Your task to perform on an android device: turn vacation reply on in the gmail app Image 0: 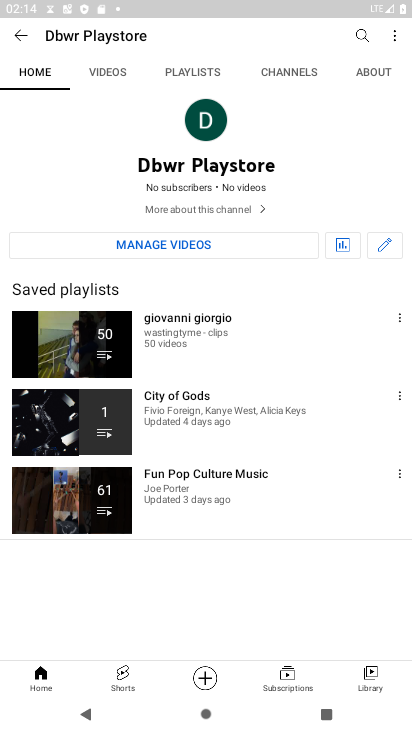
Step 0: press home button
Your task to perform on an android device: turn vacation reply on in the gmail app Image 1: 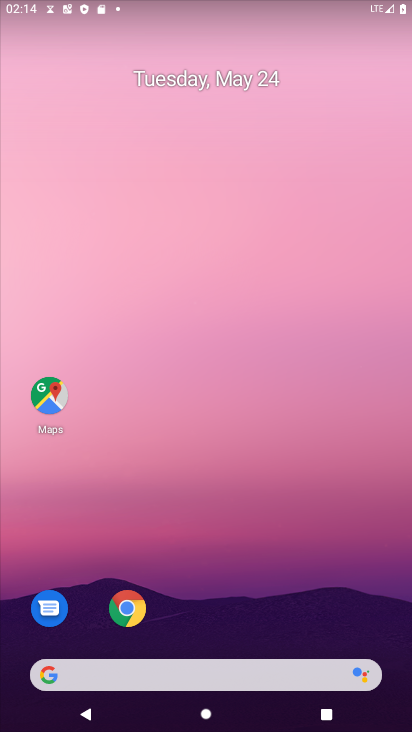
Step 1: drag from (224, 625) to (143, 194)
Your task to perform on an android device: turn vacation reply on in the gmail app Image 2: 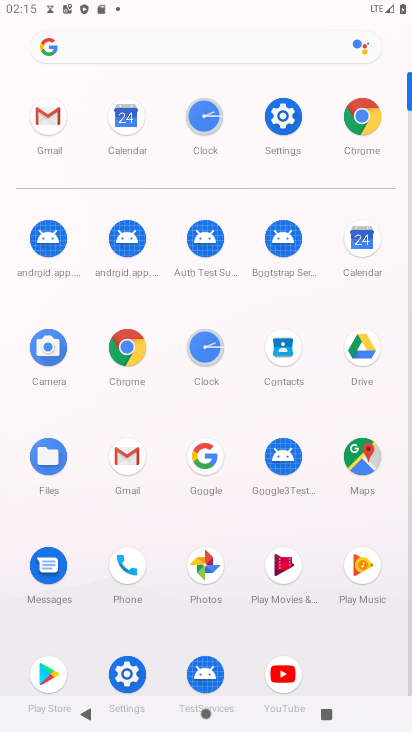
Step 2: click (42, 133)
Your task to perform on an android device: turn vacation reply on in the gmail app Image 3: 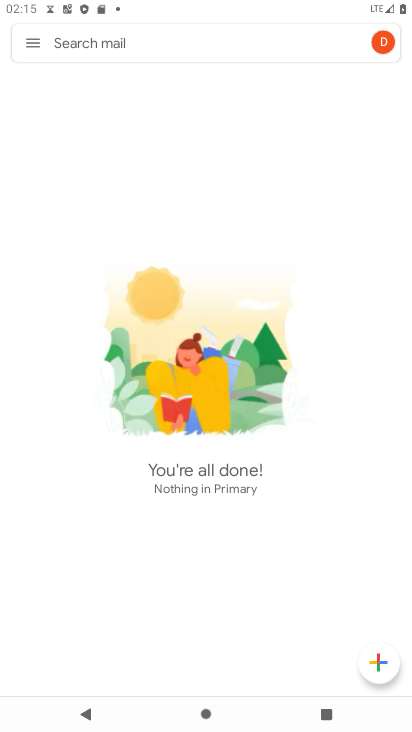
Step 3: click (26, 43)
Your task to perform on an android device: turn vacation reply on in the gmail app Image 4: 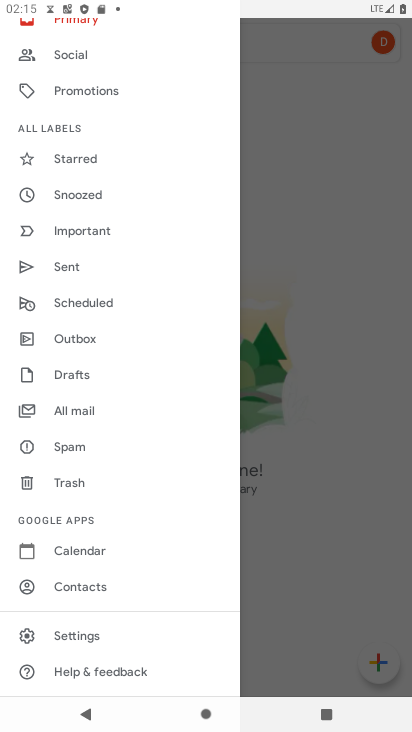
Step 4: click (92, 626)
Your task to perform on an android device: turn vacation reply on in the gmail app Image 5: 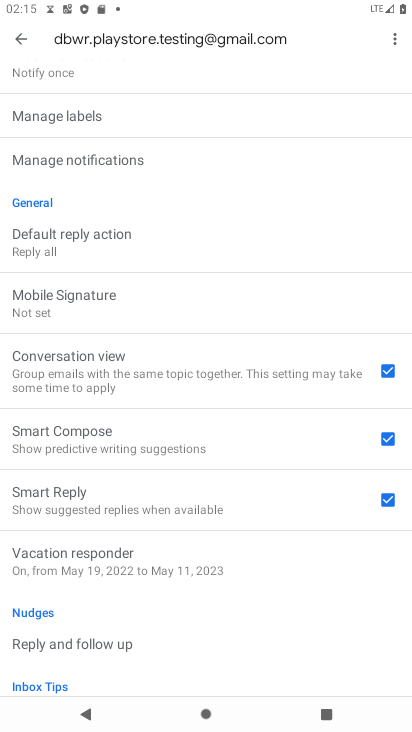
Step 5: click (113, 572)
Your task to perform on an android device: turn vacation reply on in the gmail app Image 6: 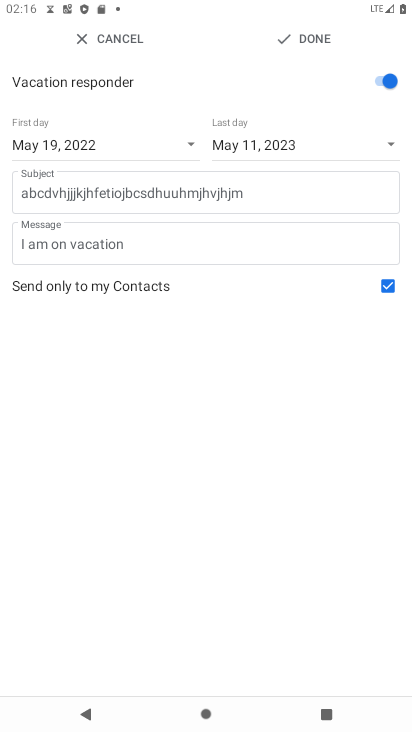
Step 6: click (259, 197)
Your task to perform on an android device: turn vacation reply on in the gmail app Image 7: 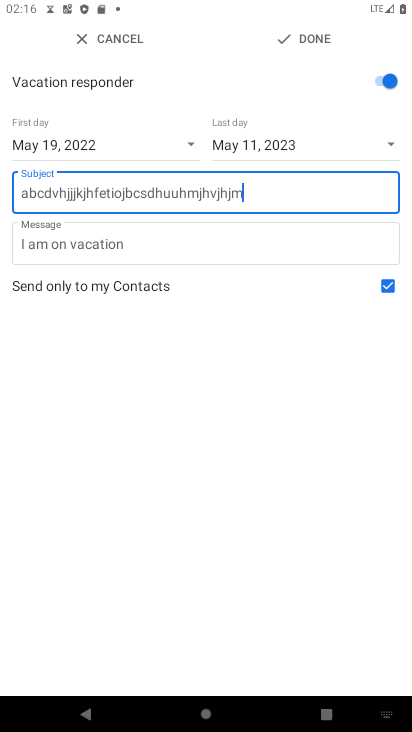
Step 7: type "hh"
Your task to perform on an android device: turn vacation reply on in the gmail app Image 8: 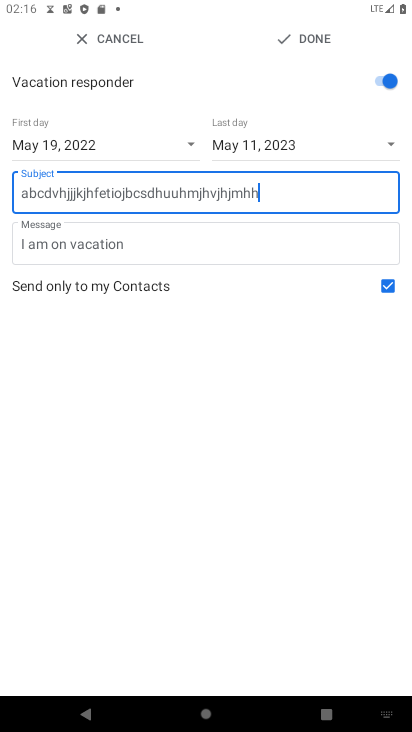
Step 8: click (276, 49)
Your task to perform on an android device: turn vacation reply on in the gmail app Image 9: 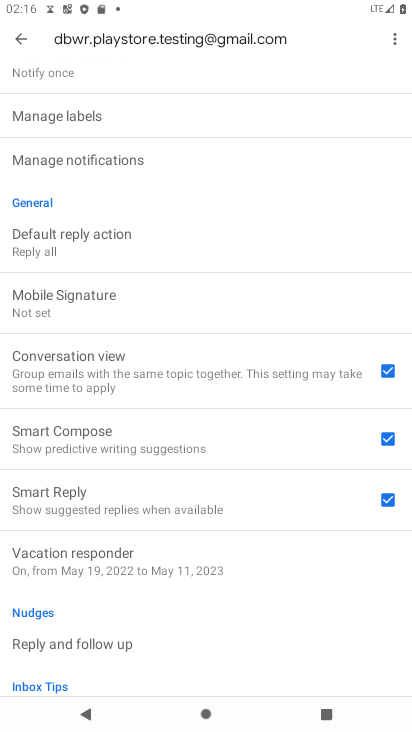
Step 9: task complete